Your task to perform on an android device: What is the recent news? Image 0: 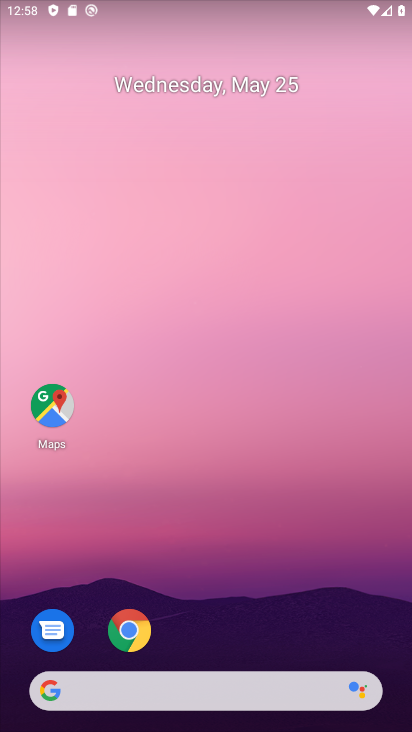
Step 0: drag from (297, 393) to (252, 26)
Your task to perform on an android device: What is the recent news? Image 1: 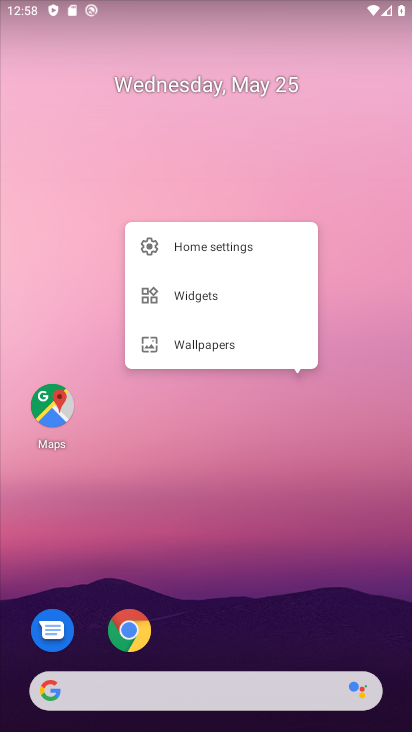
Step 1: click (313, 51)
Your task to perform on an android device: What is the recent news? Image 2: 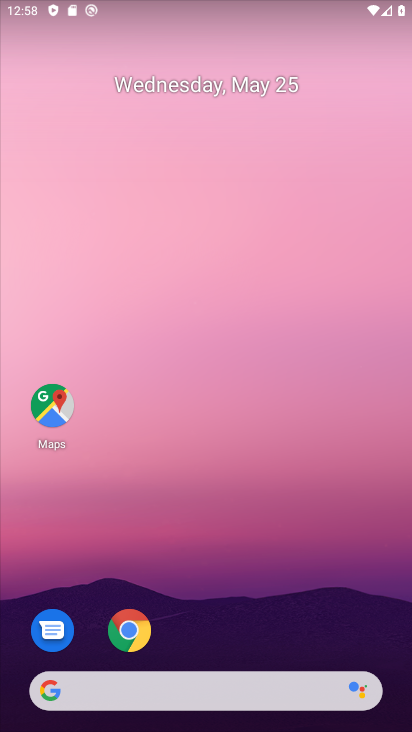
Step 2: click (229, 135)
Your task to perform on an android device: What is the recent news? Image 3: 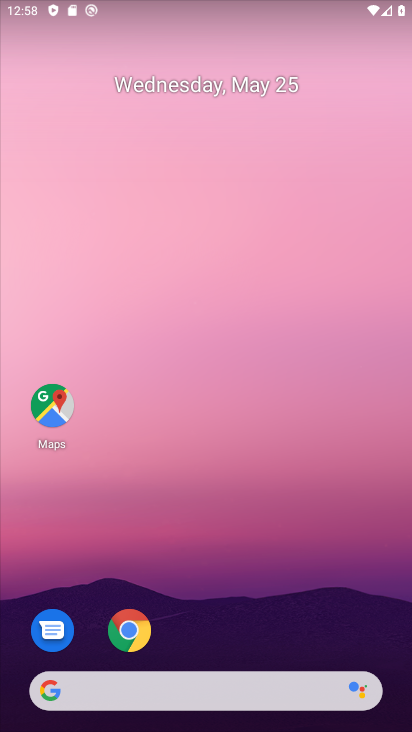
Step 3: click (256, 156)
Your task to perform on an android device: What is the recent news? Image 4: 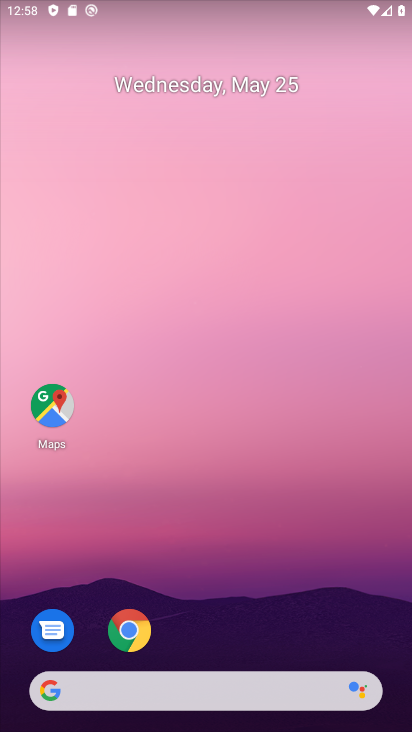
Step 4: drag from (290, 467) to (261, 85)
Your task to perform on an android device: What is the recent news? Image 5: 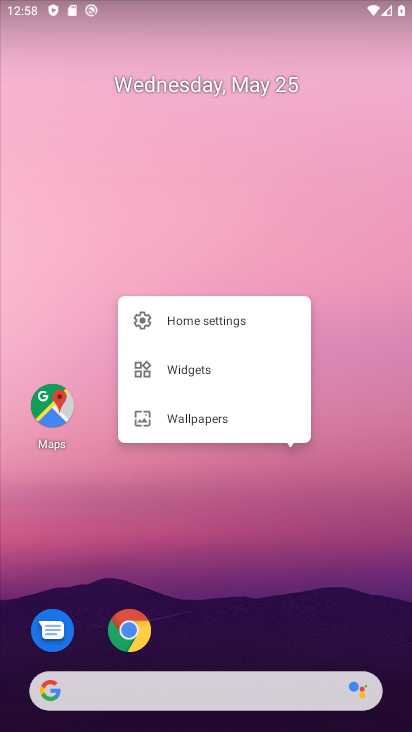
Step 5: drag from (276, 519) to (234, 65)
Your task to perform on an android device: What is the recent news? Image 6: 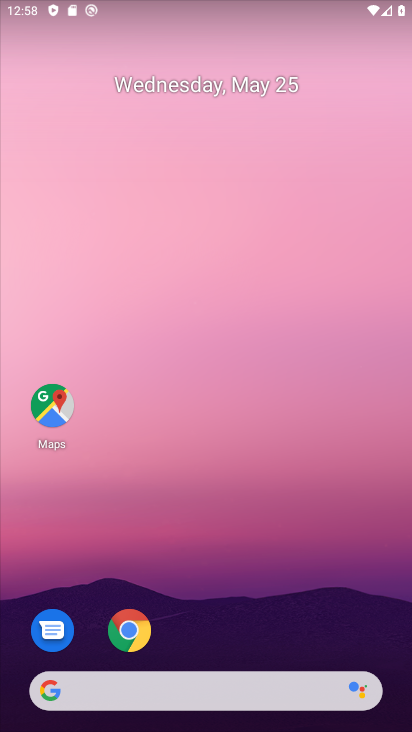
Step 6: drag from (251, 449) to (199, 111)
Your task to perform on an android device: What is the recent news? Image 7: 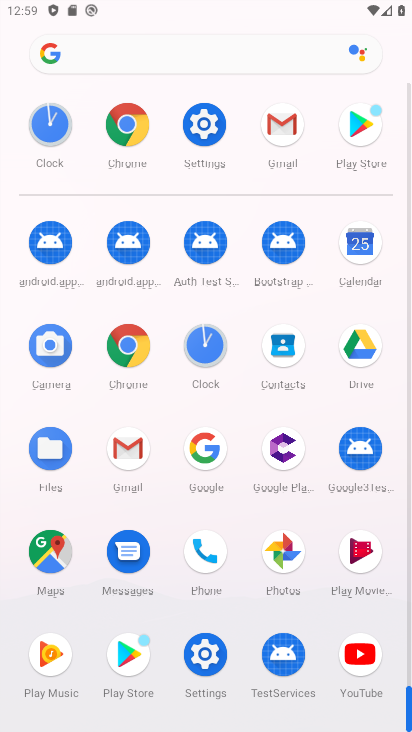
Step 7: press back button
Your task to perform on an android device: What is the recent news? Image 8: 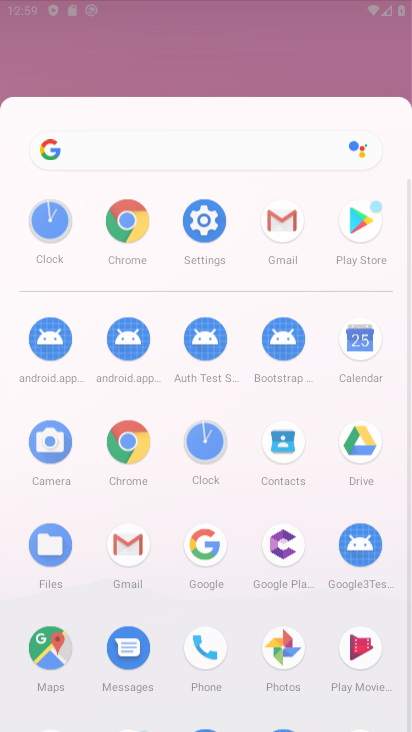
Step 8: press back button
Your task to perform on an android device: What is the recent news? Image 9: 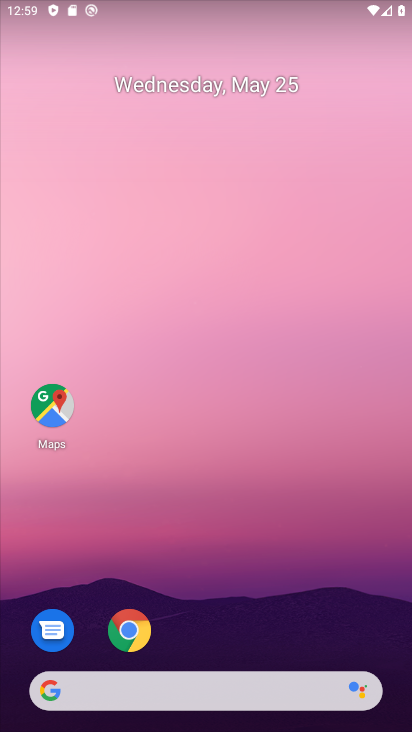
Step 9: press back button
Your task to perform on an android device: What is the recent news? Image 10: 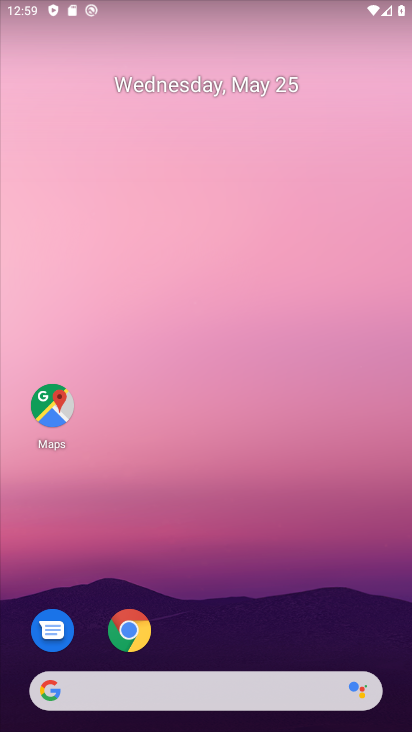
Step 10: press back button
Your task to perform on an android device: What is the recent news? Image 11: 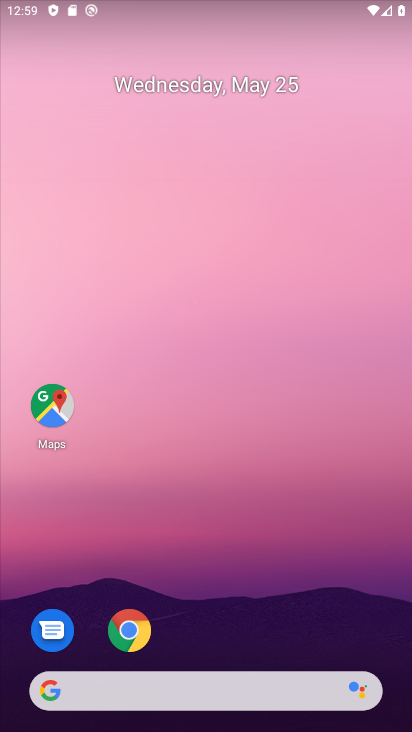
Step 11: drag from (3, 184) to (382, 312)
Your task to perform on an android device: What is the recent news? Image 12: 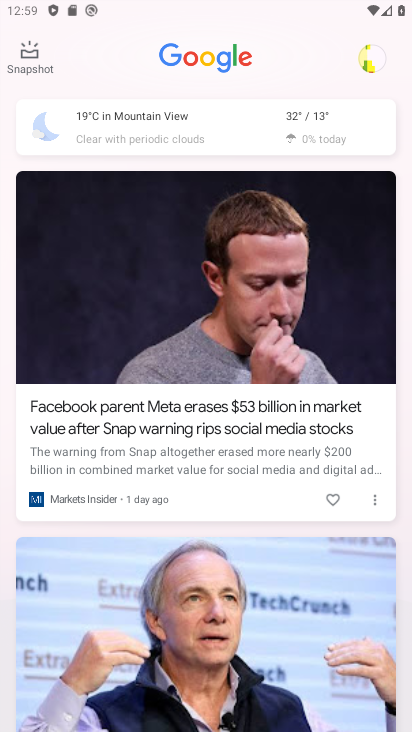
Step 12: click (145, 127)
Your task to perform on an android device: What is the recent news? Image 13: 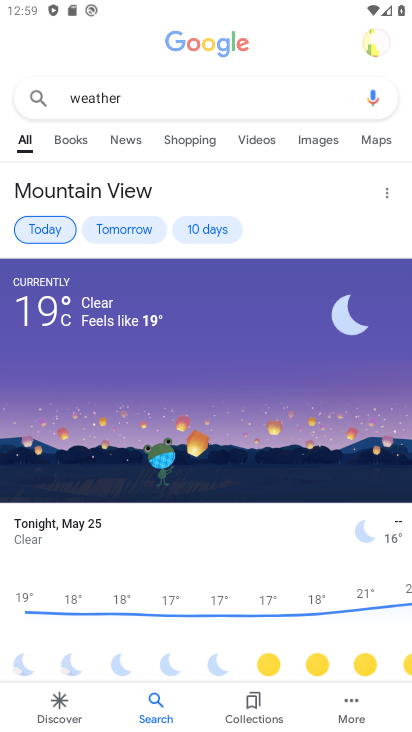
Step 13: press back button
Your task to perform on an android device: What is the recent news? Image 14: 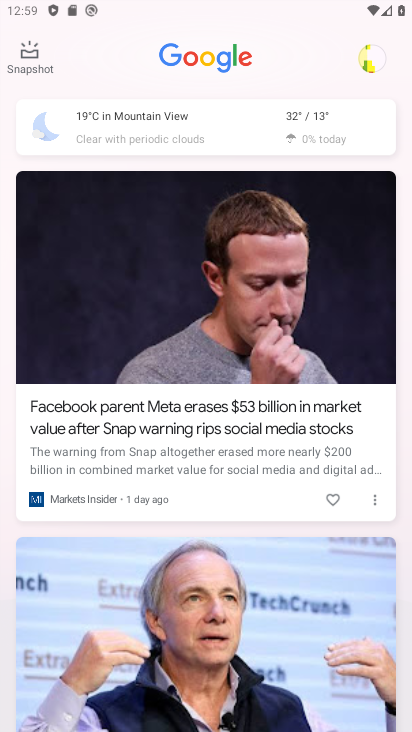
Step 14: drag from (217, 468) to (215, 82)
Your task to perform on an android device: What is the recent news? Image 15: 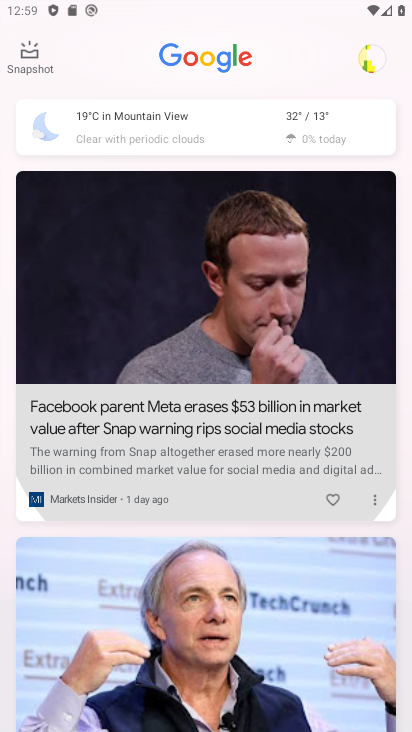
Step 15: drag from (220, 457) to (217, 125)
Your task to perform on an android device: What is the recent news? Image 16: 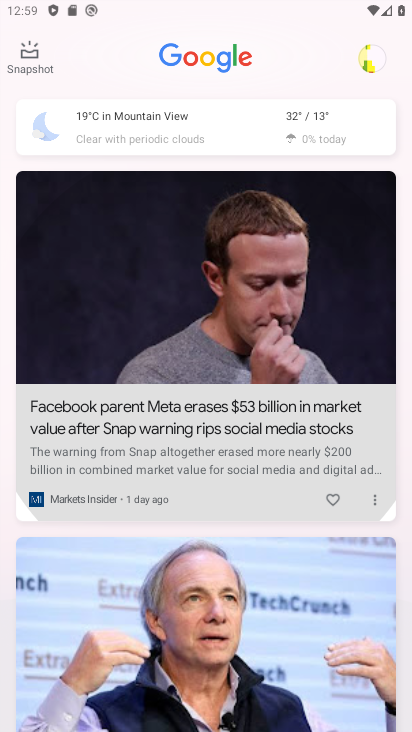
Step 16: drag from (205, 526) to (170, 226)
Your task to perform on an android device: What is the recent news? Image 17: 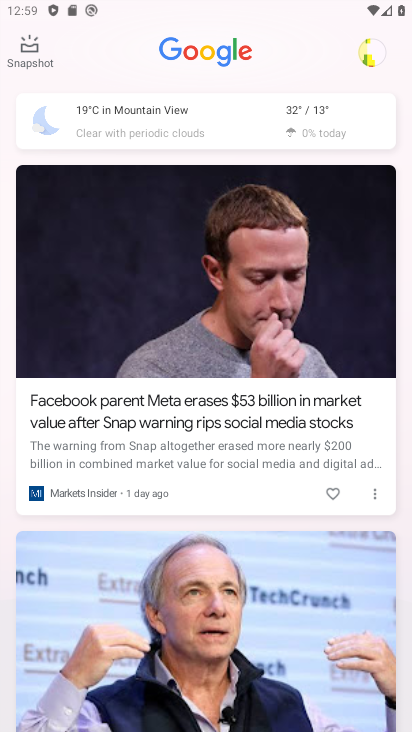
Step 17: drag from (238, 566) to (261, 148)
Your task to perform on an android device: What is the recent news? Image 18: 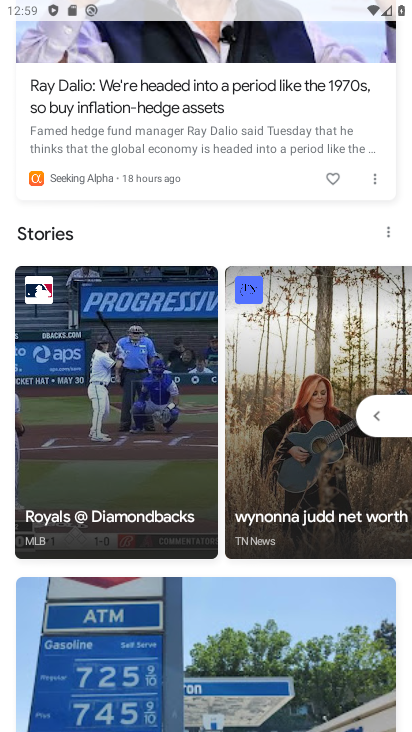
Step 18: drag from (225, 442) to (193, 151)
Your task to perform on an android device: What is the recent news? Image 19: 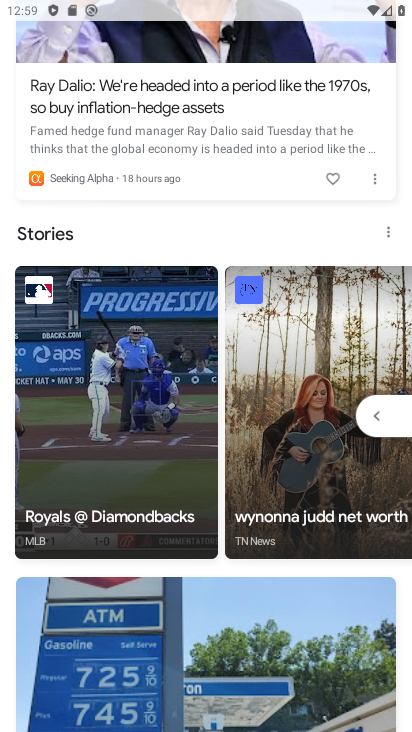
Step 19: drag from (191, 482) to (156, 135)
Your task to perform on an android device: What is the recent news? Image 20: 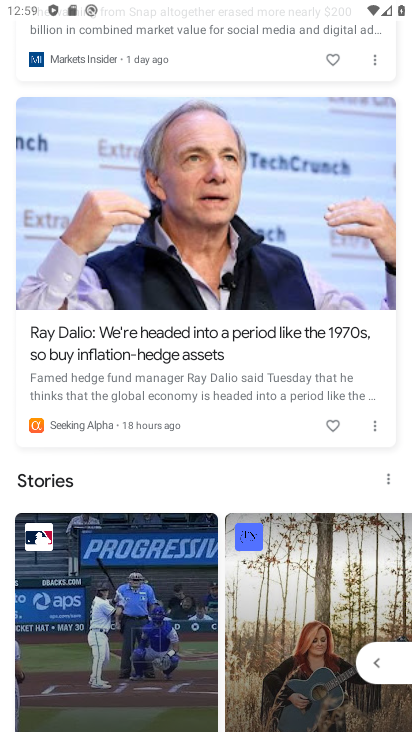
Step 20: drag from (197, 421) to (186, 139)
Your task to perform on an android device: What is the recent news? Image 21: 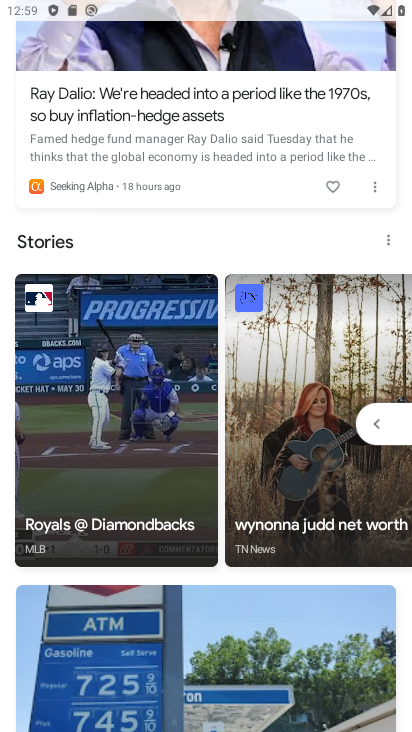
Step 21: drag from (208, 523) to (204, 128)
Your task to perform on an android device: What is the recent news? Image 22: 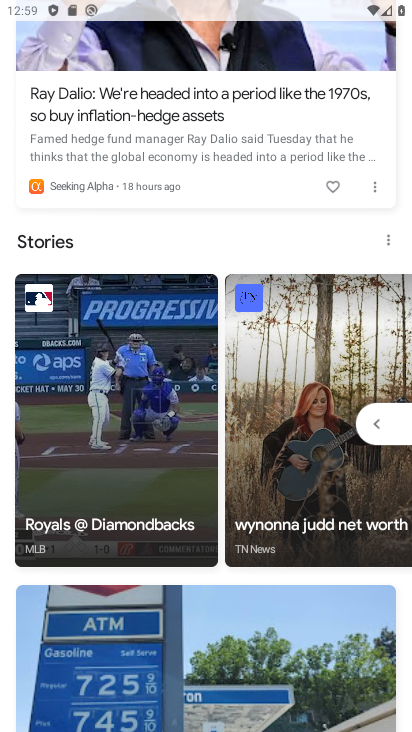
Step 22: drag from (228, 506) to (163, 133)
Your task to perform on an android device: What is the recent news? Image 23: 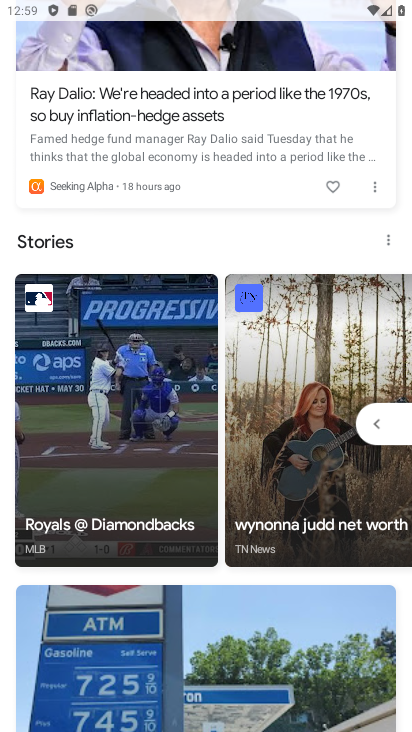
Step 23: drag from (190, 476) to (187, 234)
Your task to perform on an android device: What is the recent news? Image 24: 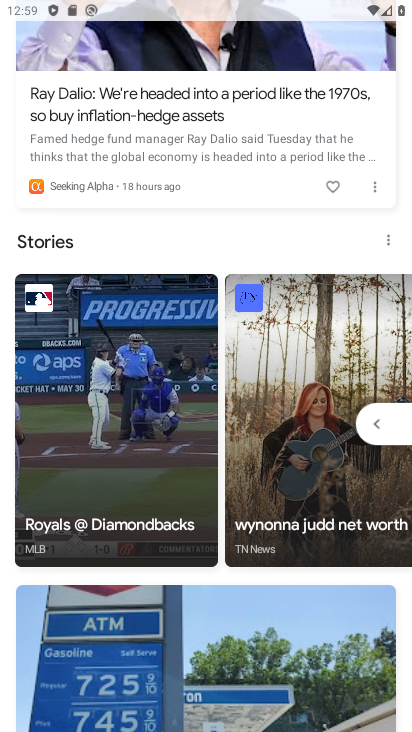
Step 24: drag from (192, 457) to (189, 93)
Your task to perform on an android device: What is the recent news? Image 25: 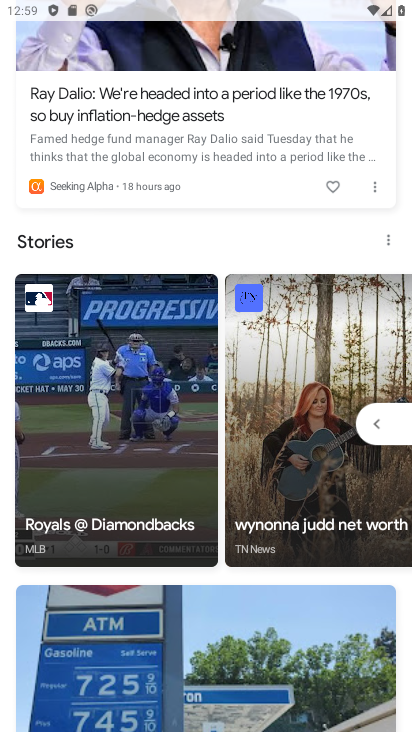
Step 25: drag from (187, 414) to (209, 74)
Your task to perform on an android device: What is the recent news? Image 26: 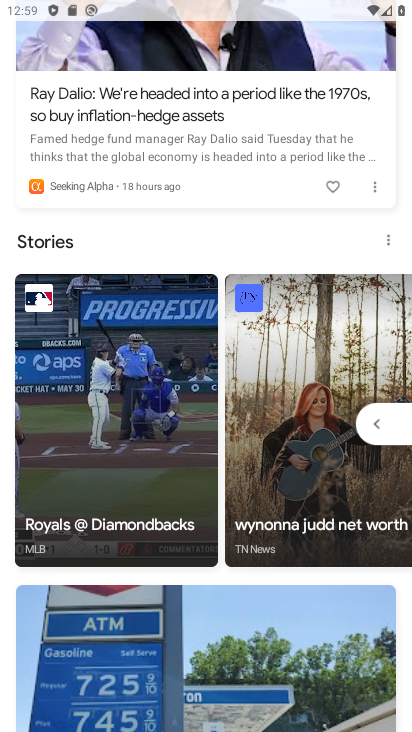
Step 26: drag from (235, 488) to (226, 131)
Your task to perform on an android device: What is the recent news? Image 27: 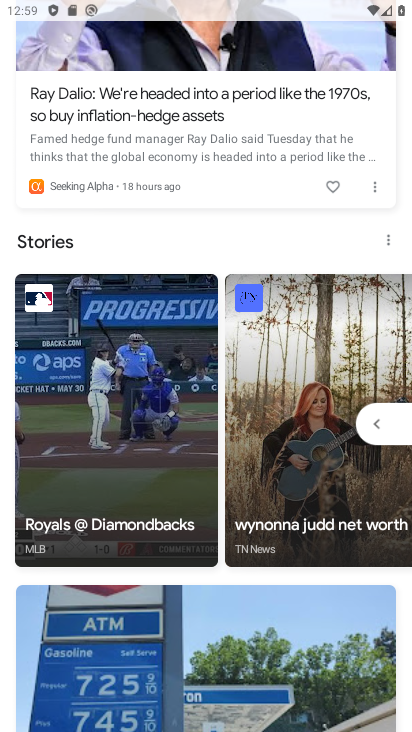
Step 27: click (195, 55)
Your task to perform on an android device: What is the recent news? Image 28: 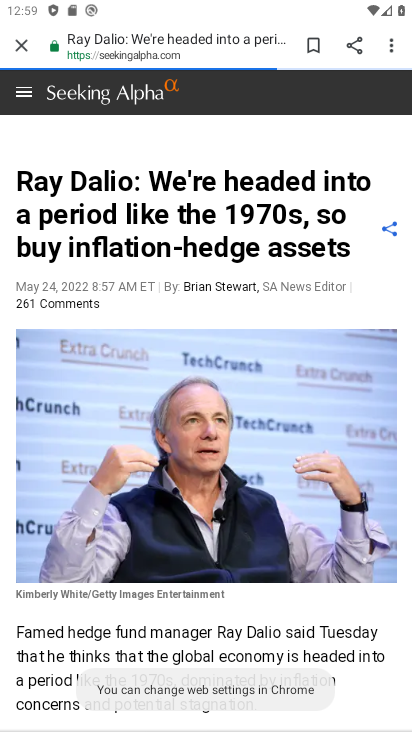
Step 28: drag from (223, 431) to (226, 55)
Your task to perform on an android device: What is the recent news? Image 29: 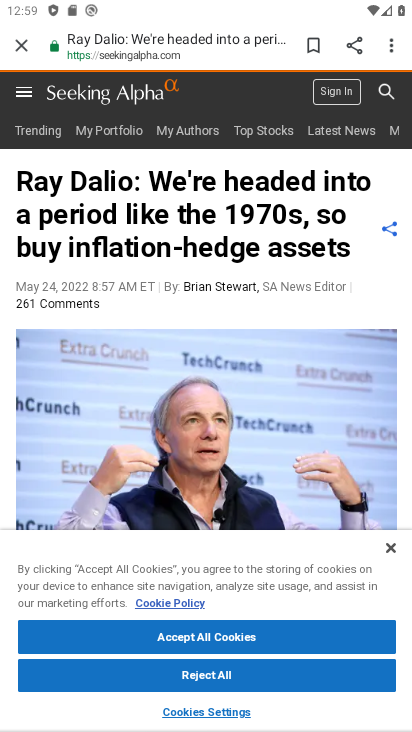
Step 29: press back button
Your task to perform on an android device: What is the recent news? Image 30: 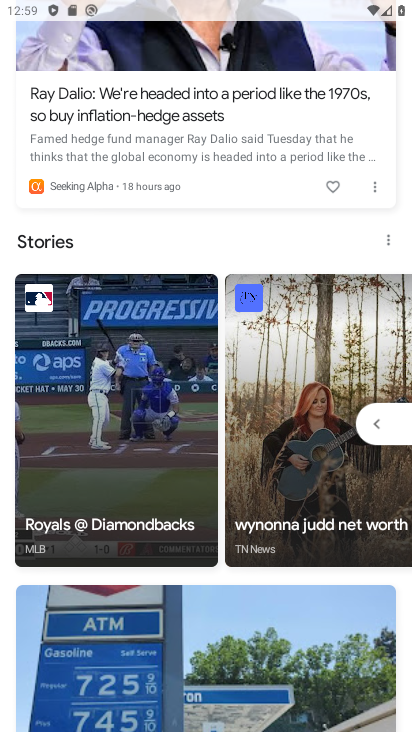
Step 30: press home button
Your task to perform on an android device: What is the recent news? Image 31: 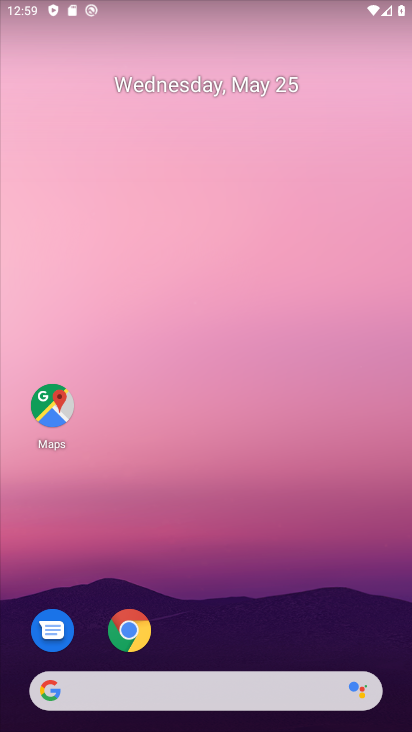
Step 31: drag from (272, 689) to (233, 60)
Your task to perform on an android device: What is the recent news? Image 32: 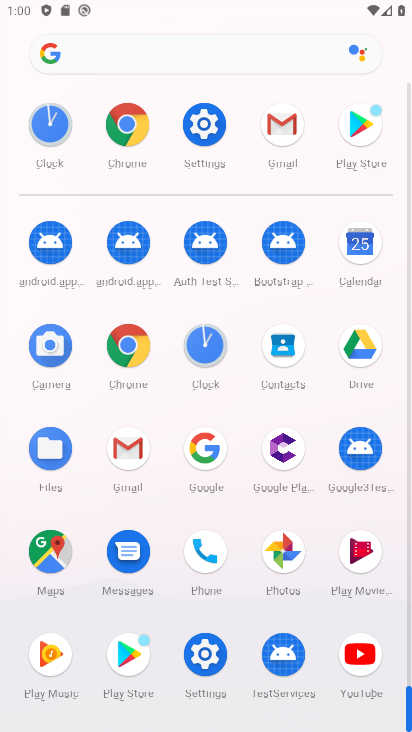
Step 32: press back button
Your task to perform on an android device: What is the recent news? Image 33: 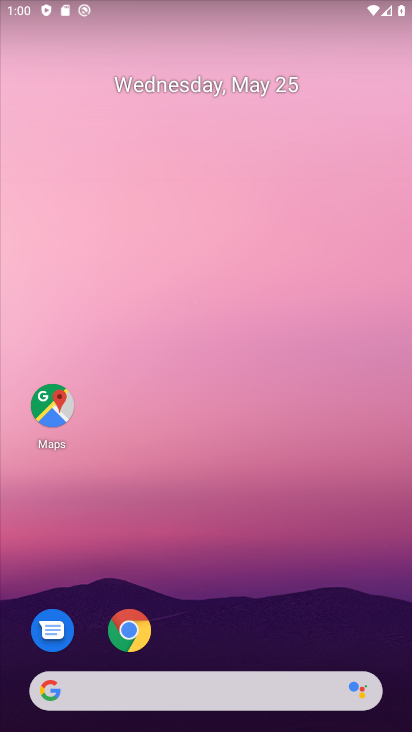
Step 33: press back button
Your task to perform on an android device: What is the recent news? Image 34: 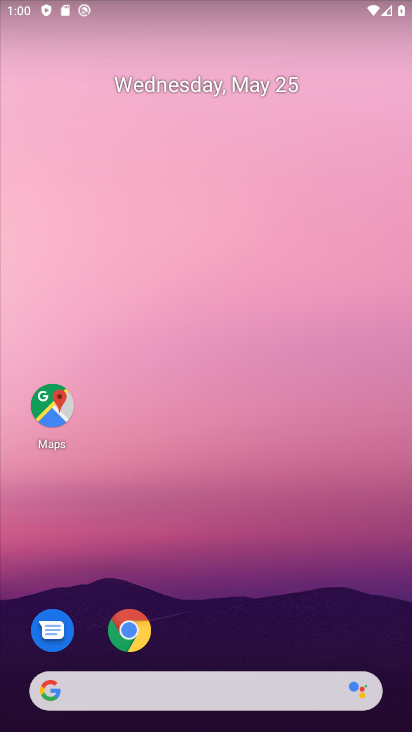
Step 34: press back button
Your task to perform on an android device: What is the recent news? Image 35: 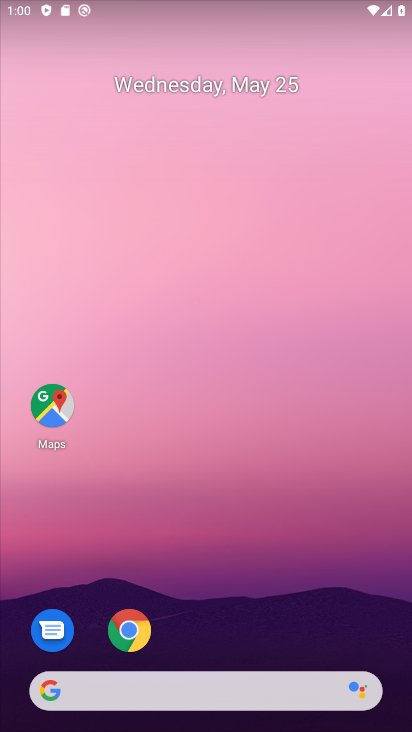
Step 35: drag from (42, 175) to (392, 275)
Your task to perform on an android device: What is the recent news? Image 36: 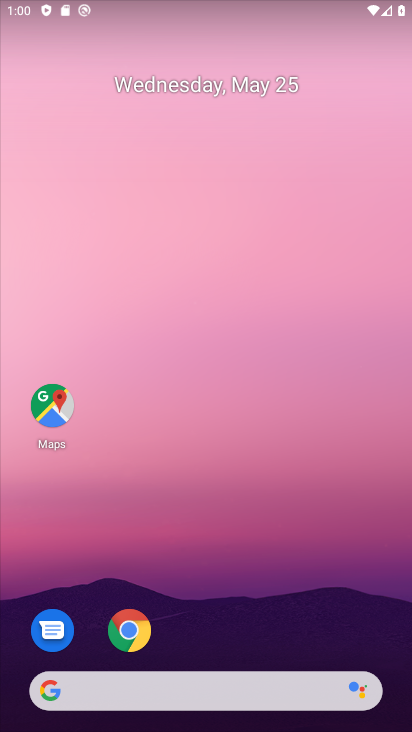
Step 36: drag from (0, 201) to (403, 436)
Your task to perform on an android device: What is the recent news? Image 37: 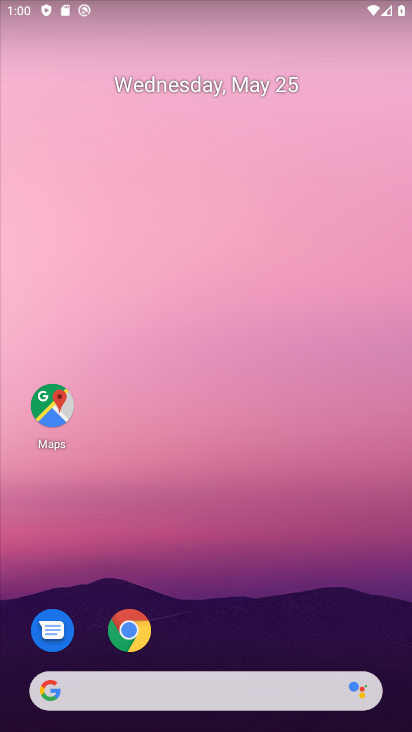
Step 37: drag from (9, 171) to (394, 285)
Your task to perform on an android device: What is the recent news? Image 38: 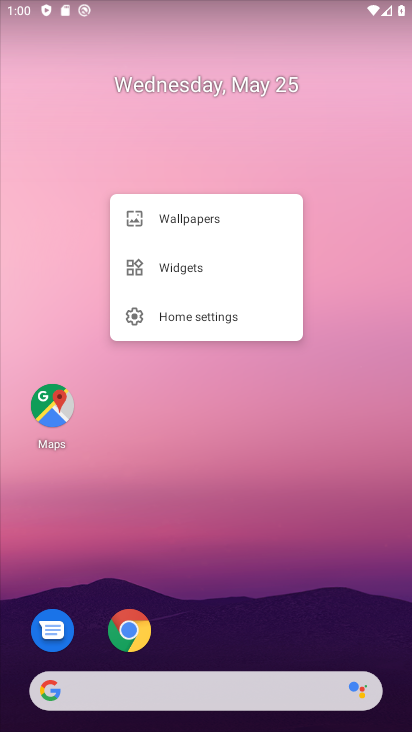
Step 38: click (129, 146)
Your task to perform on an android device: What is the recent news? Image 39: 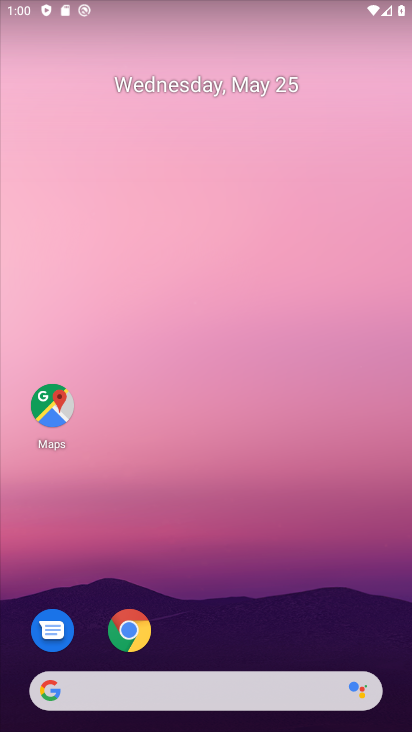
Step 39: click (130, 147)
Your task to perform on an android device: What is the recent news? Image 40: 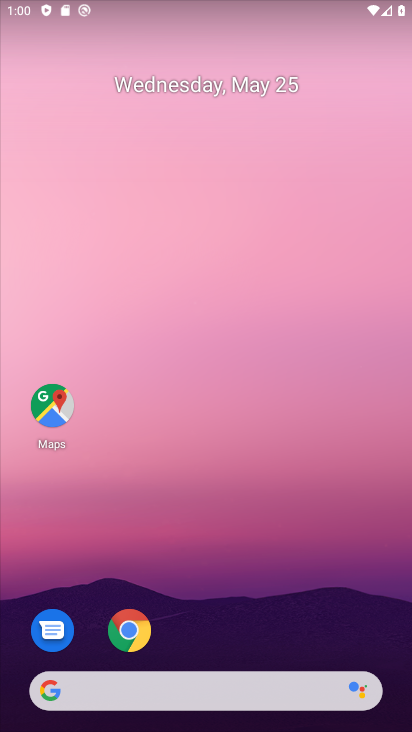
Step 40: click (362, 426)
Your task to perform on an android device: What is the recent news? Image 41: 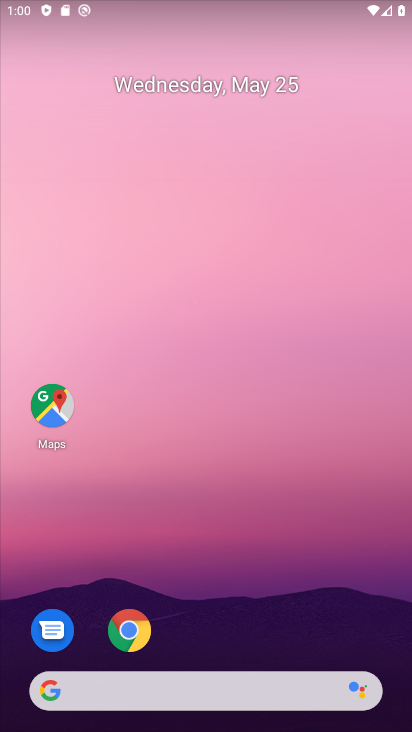
Step 41: task complete